Your task to perform on an android device: toggle notifications settings in the gmail app Image 0: 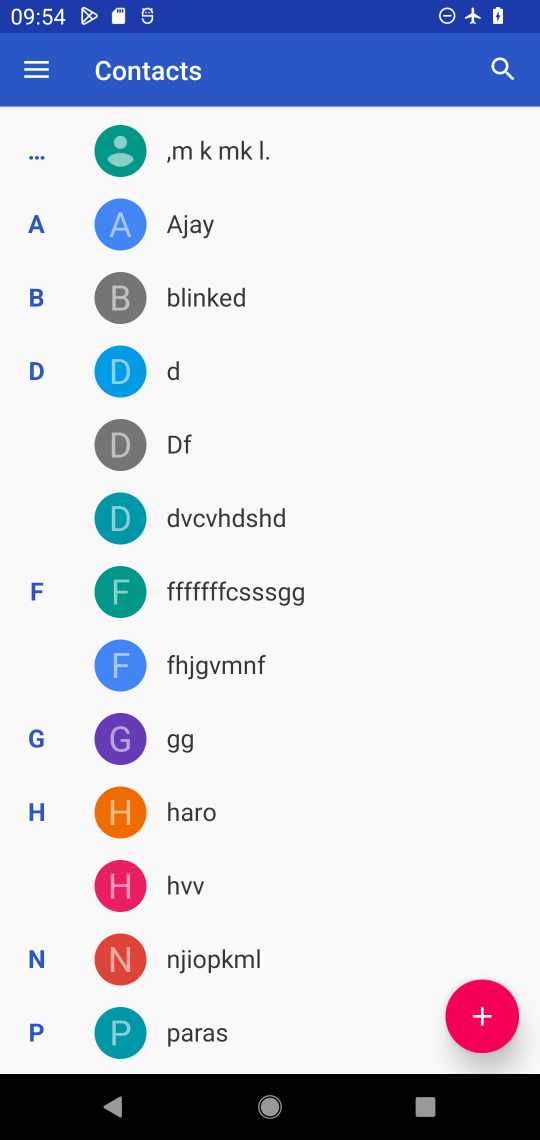
Step 0: press home button
Your task to perform on an android device: toggle notifications settings in the gmail app Image 1: 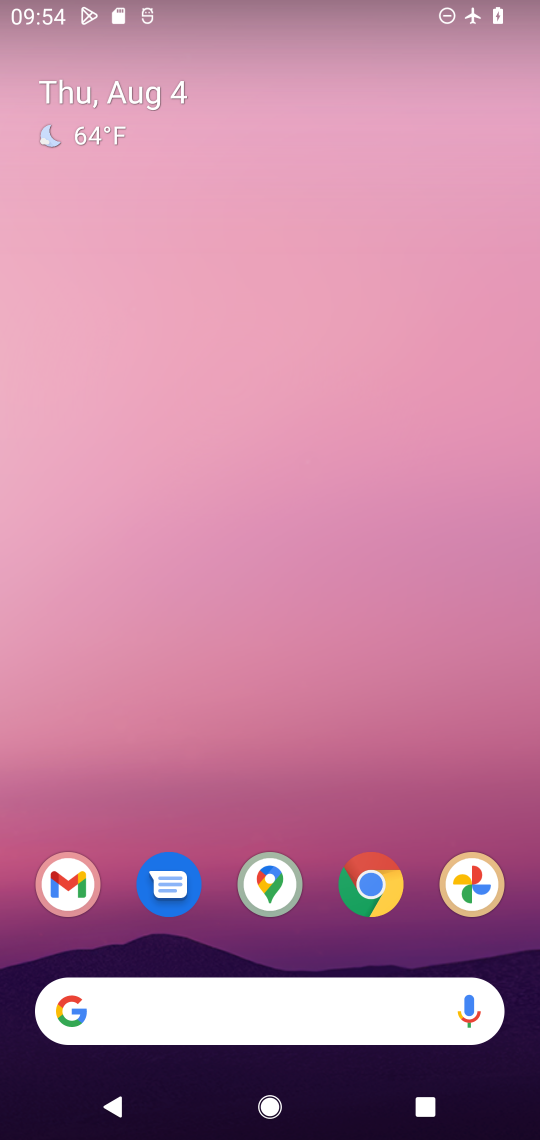
Step 1: drag from (196, 1103) to (307, 491)
Your task to perform on an android device: toggle notifications settings in the gmail app Image 2: 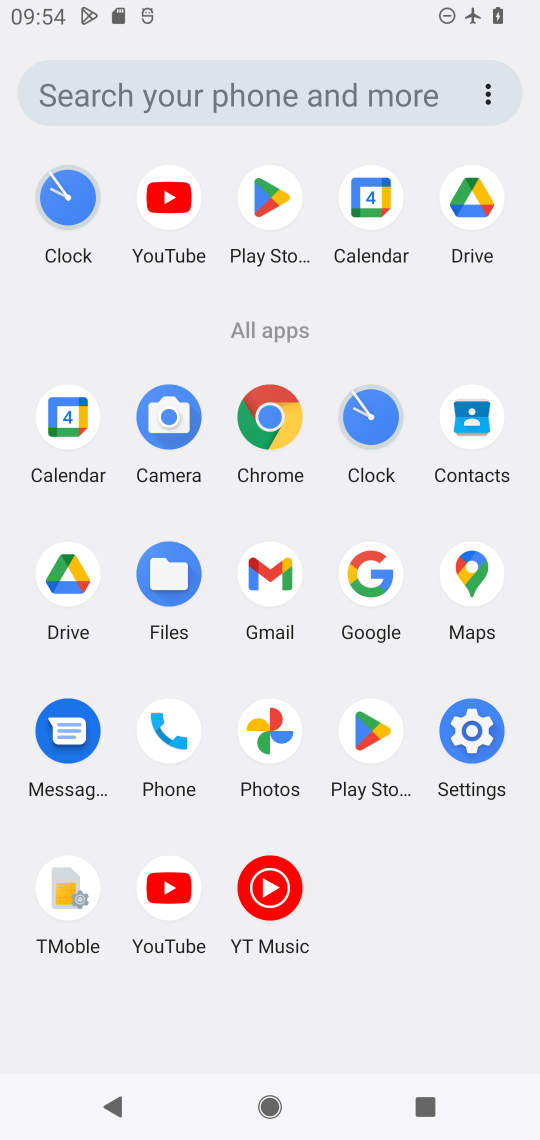
Step 2: click (470, 728)
Your task to perform on an android device: toggle notifications settings in the gmail app Image 3: 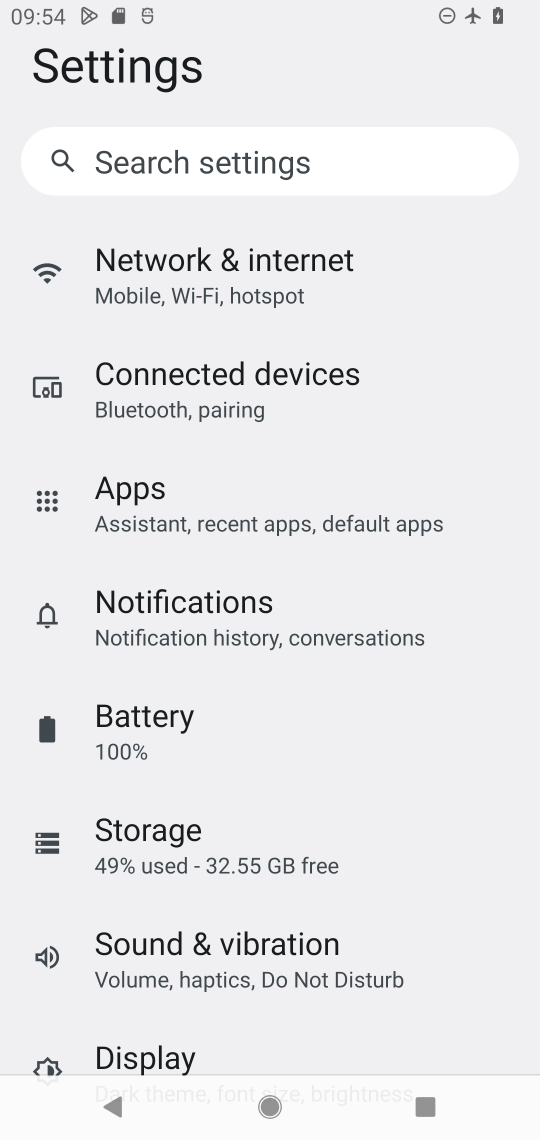
Step 3: click (286, 630)
Your task to perform on an android device: toggle notifications settings in the gmail app Image 4: 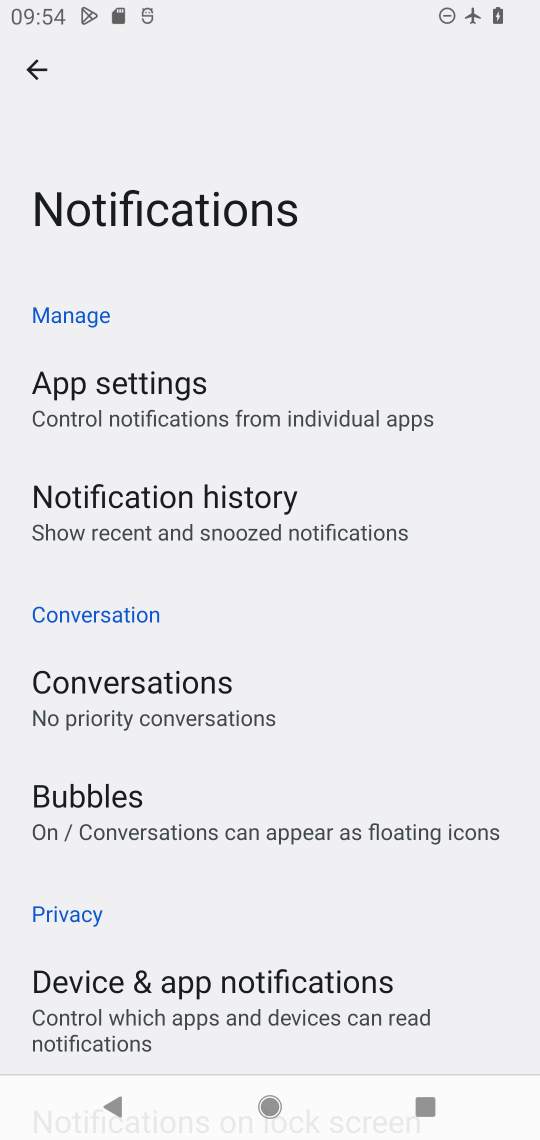
Step 4: click (302, 403)
Your task to perform on an android device: toggle notifications settings in the gmail app Image 5: 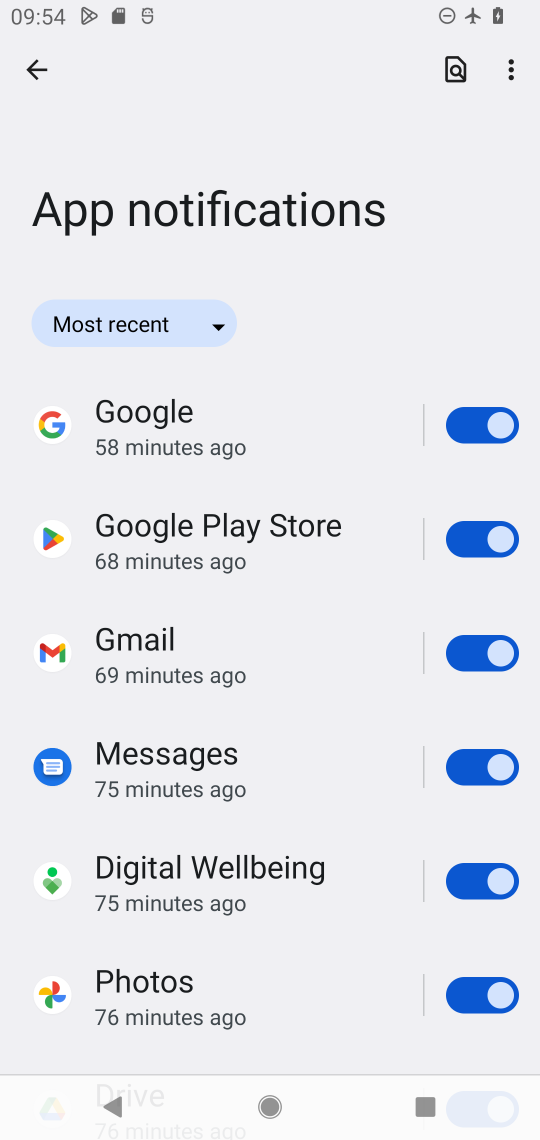
Step 5: click (485, 654)
Your task to perform on an android device: toggle notifications settings in the gmail app Image 6: 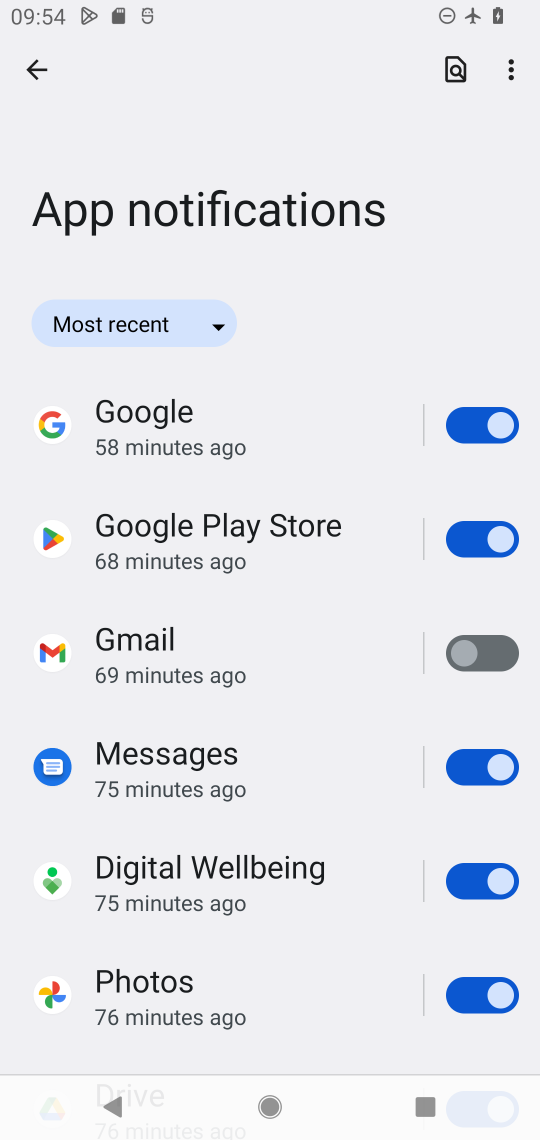
Step 6: task complete